Your task to perform on an android device: add a contact Image 0: 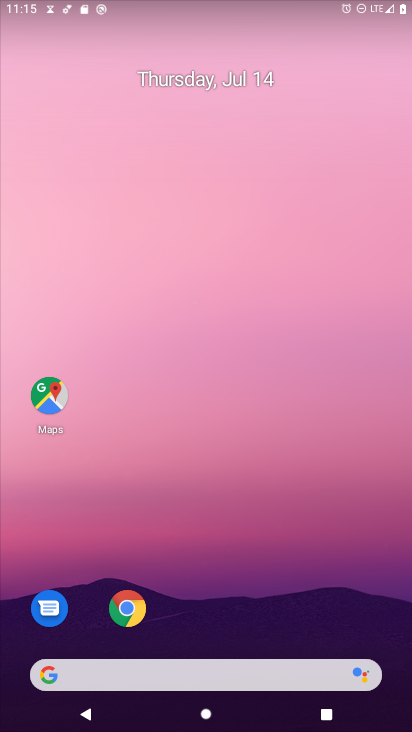
Step 0: drag from (245, 703) to (250, 251)
Your task to perform on an android device: add a contact Image 1: 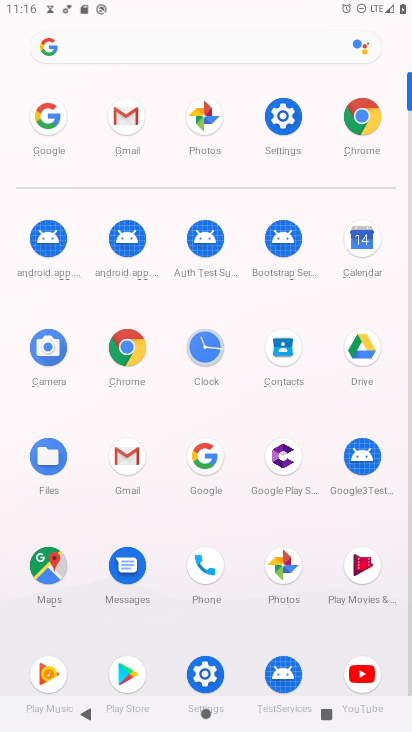
Step 1: click (276, 353)
Your task to perform on an android device: add a contact Image 2: 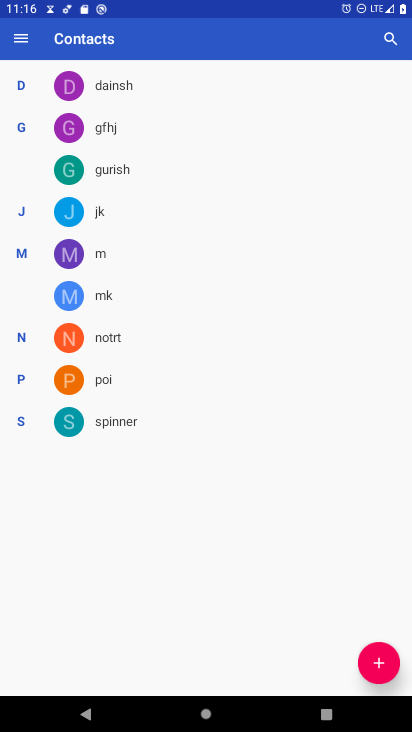
Step 2: click (381, 665)
Your task to perform on an android device: add a contact Image 3: 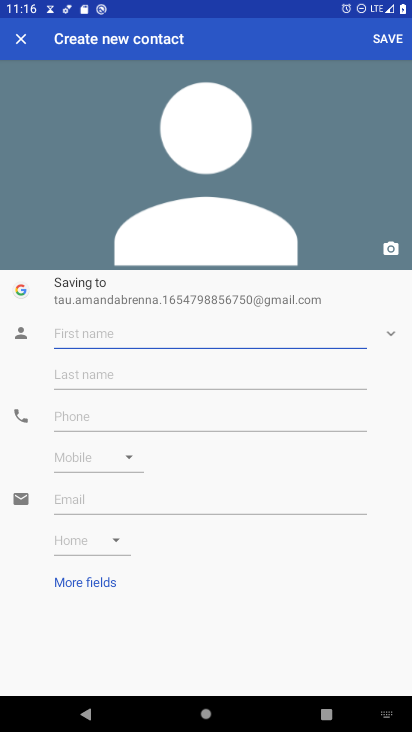
Step 3: type "maharanaprtap"
Your task to perform on an android device: add a contact Image 4: 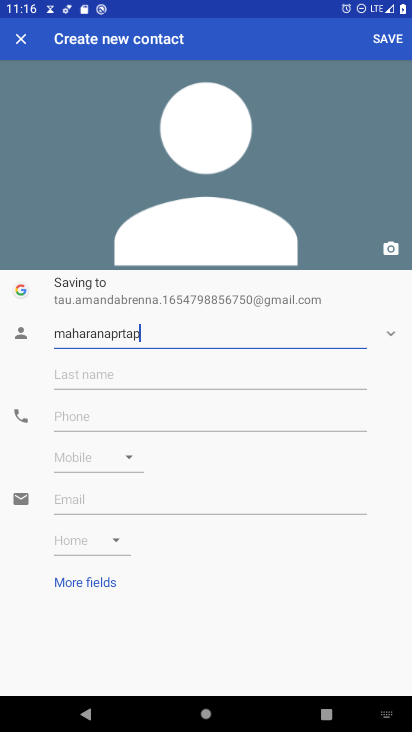
Step 4: click (106, 417)
Your task to perform on an android device: add a contact Image 5: 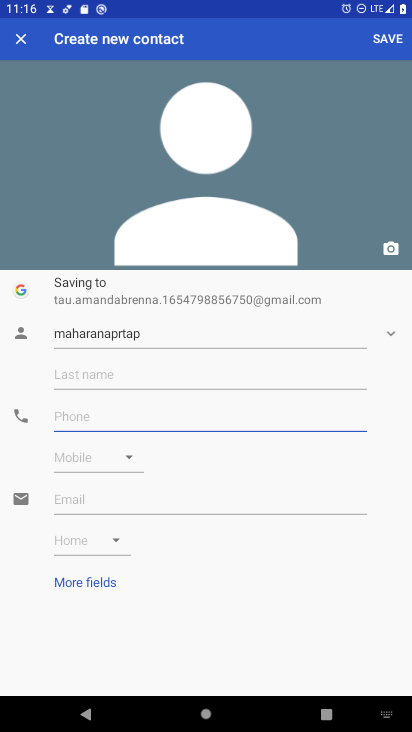
Step 5: type "8987666"
Your task to perform on an android device: add a contact Image 6: 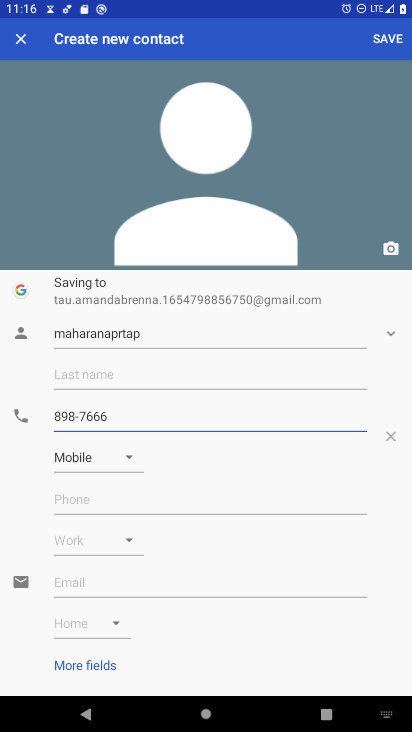
Step 6: click (384, 35)
Your task to perform on an android device: add a contact Image 7: 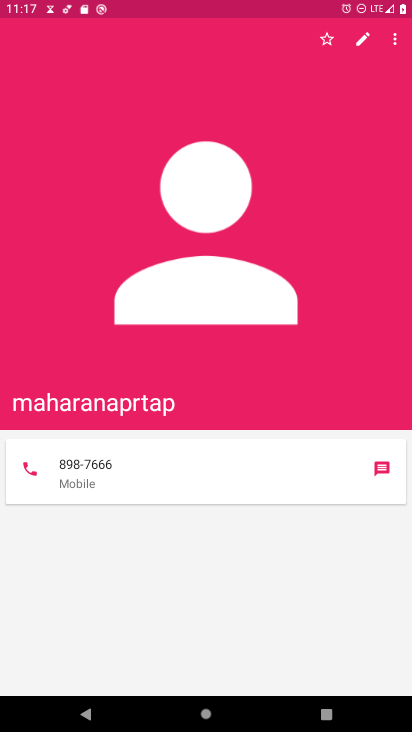
Step 7: task complete